Your task to perform on an android device: Open Chrome and go to settings Image 0: 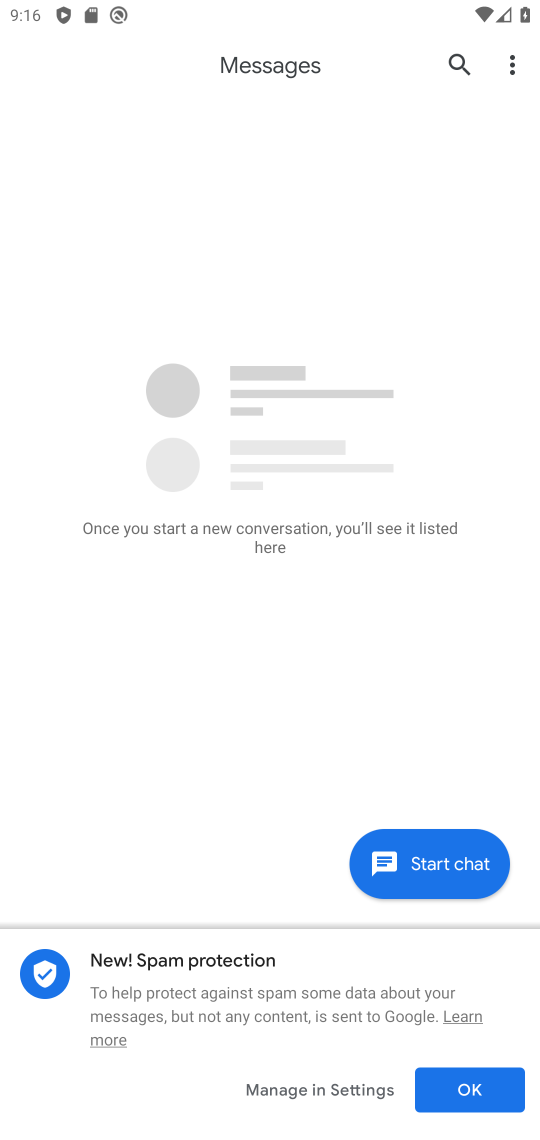
Step 0: press back button
Your task to perform on an android device: Open Chrome and go to settings Image 1: 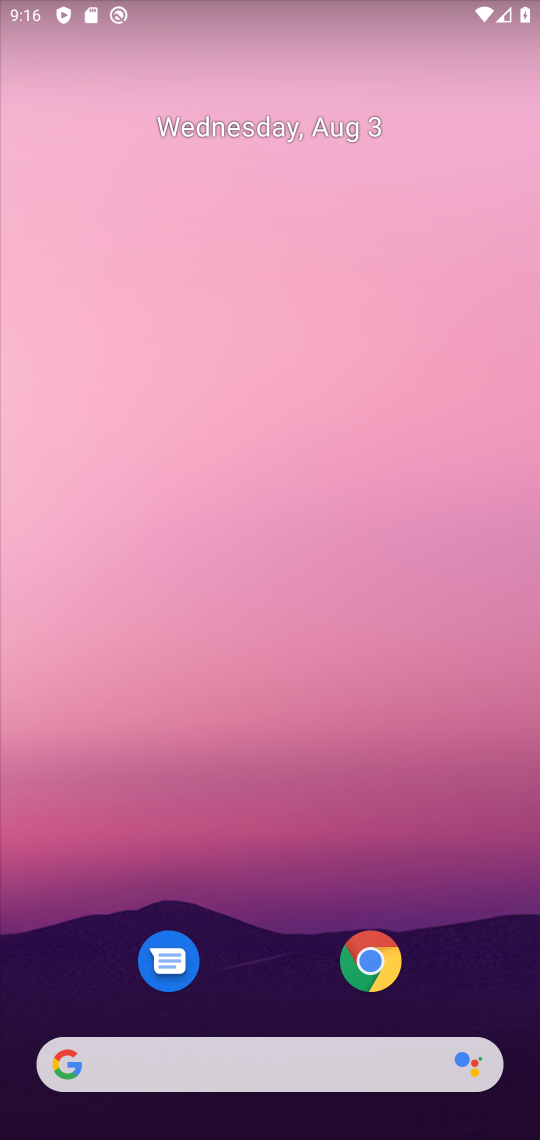
Step 1: click (346, 958)
Your task to perform on an android device: Open Chrome and go to settings Image 2: 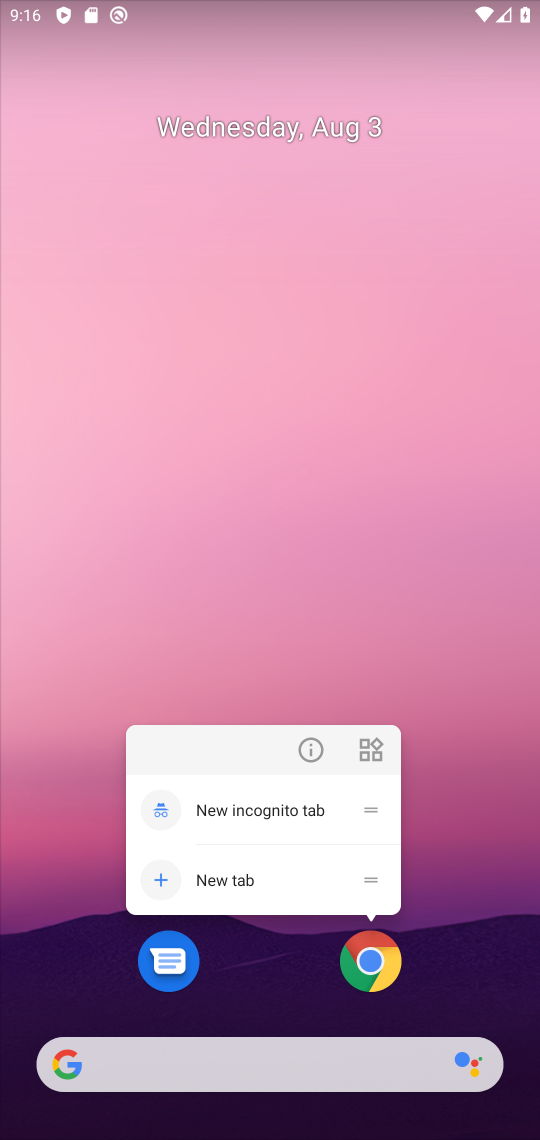
Step 2: click (373, 963)
Your task to perform on an android device: Open Chrome and go to settings Image 3: 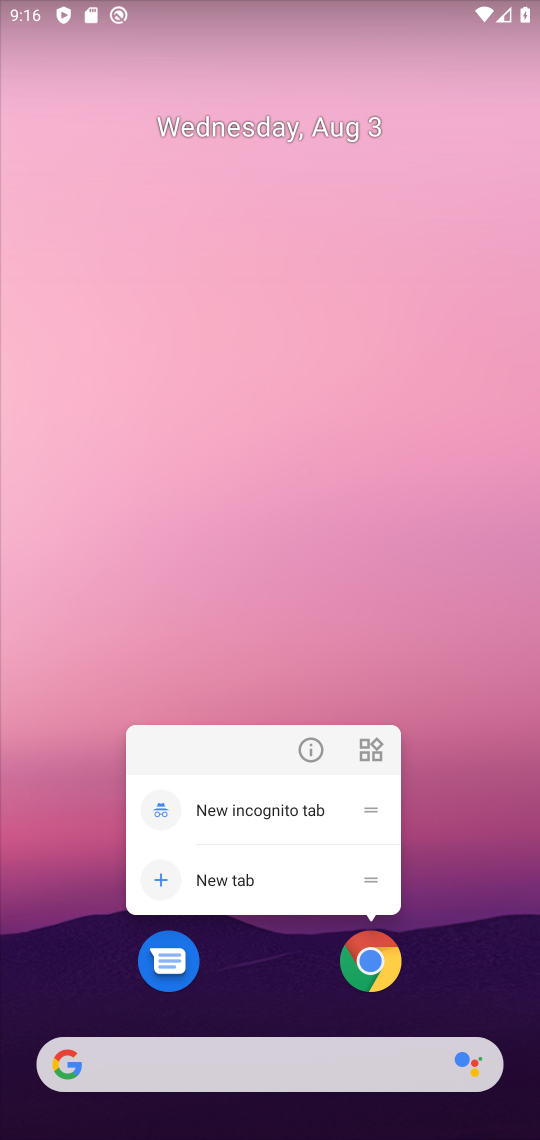
Step 3: click (380, 965)
Your task to perform on an android device: Open Chrome and go to settings Image 4: 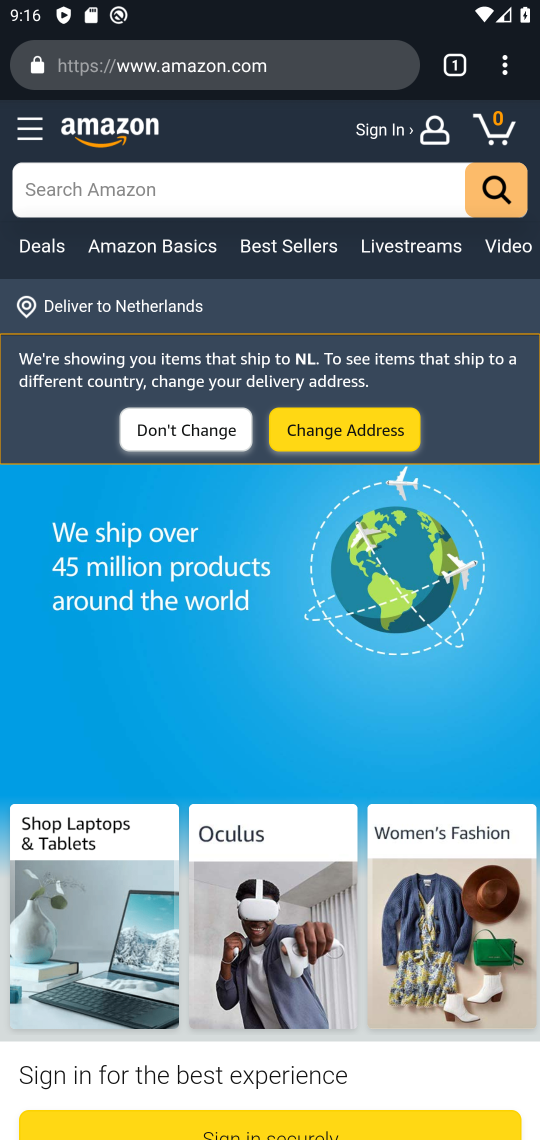
Step 4: task complete